Your task to perform on an android device: turn smart compose on in the gmail app Image 0: 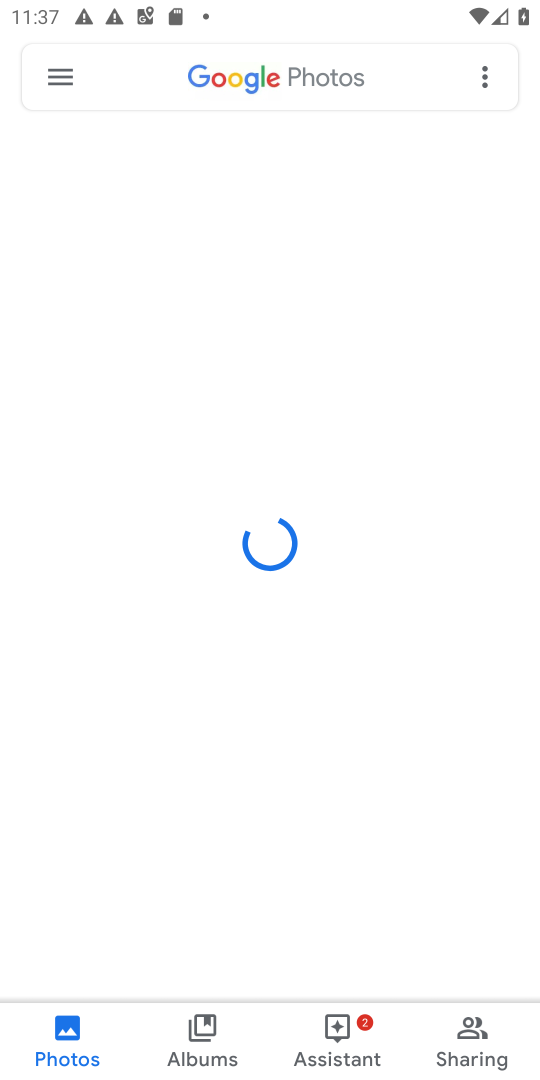
Step 0: press home button
Your task to perform on an android device: turn smart compose on in the gmail app Image 1: 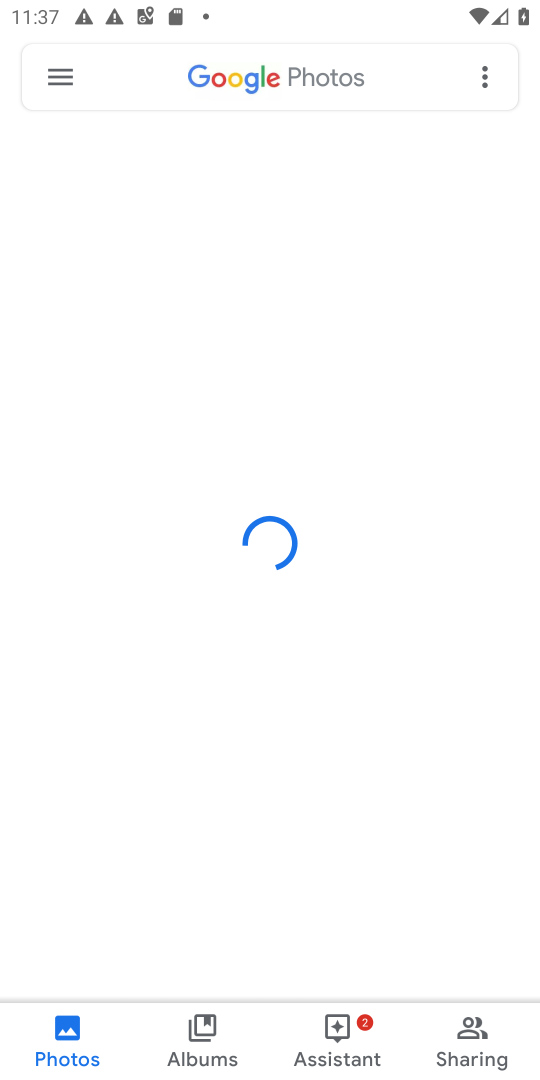
Step 1: press home button
Your task to perform on an android device: turn smart compose on in the gmail app Image 2: 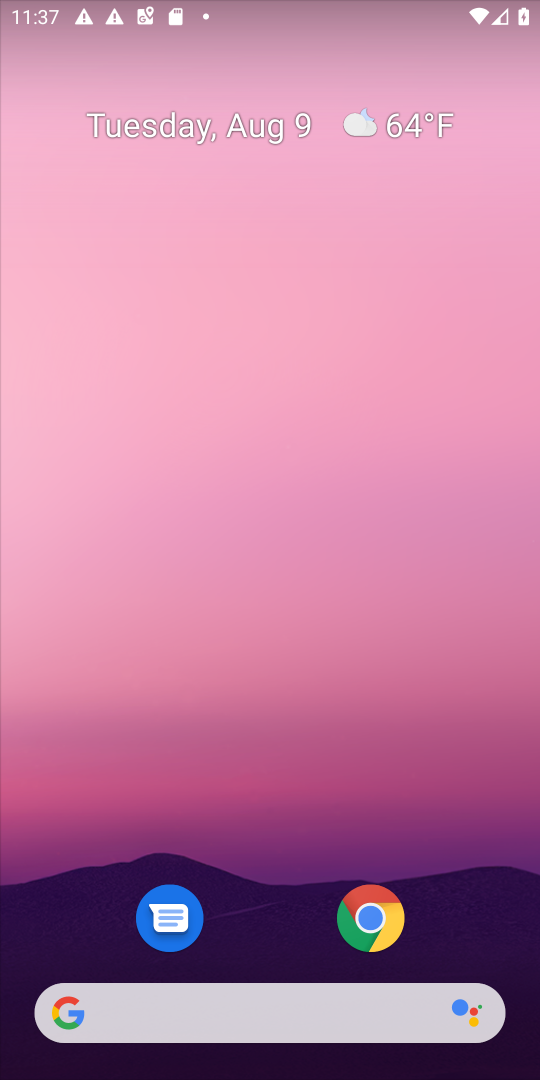
Step 2: drag from (254, 939) to (360, 249)
Your task to perform on an android device: turn smart compose on in the gmail app Image 3: 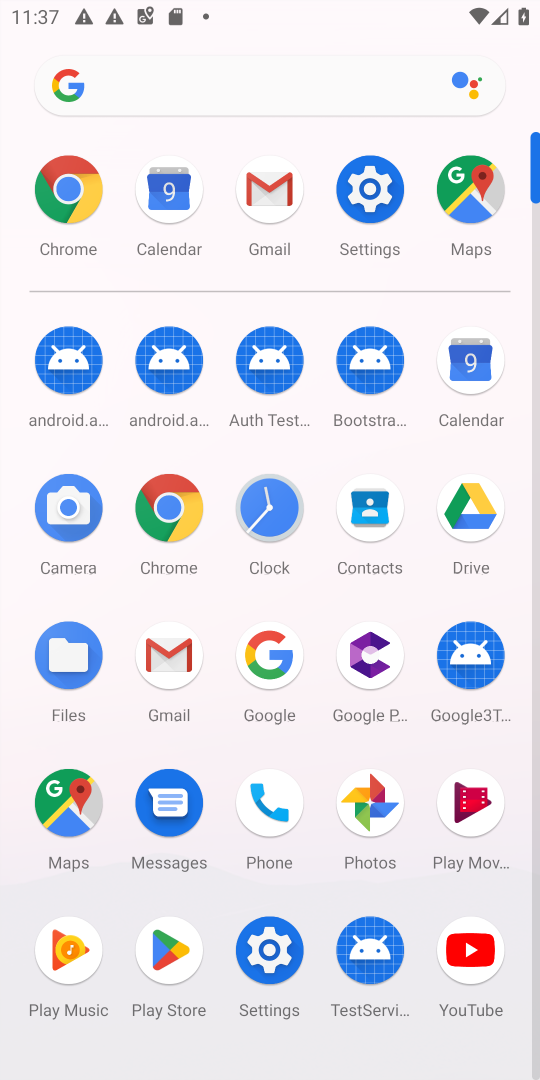
Step 3: click (174, 662)
Your task to perform on an android device: turn smart compose on in the gmail app Image 4: 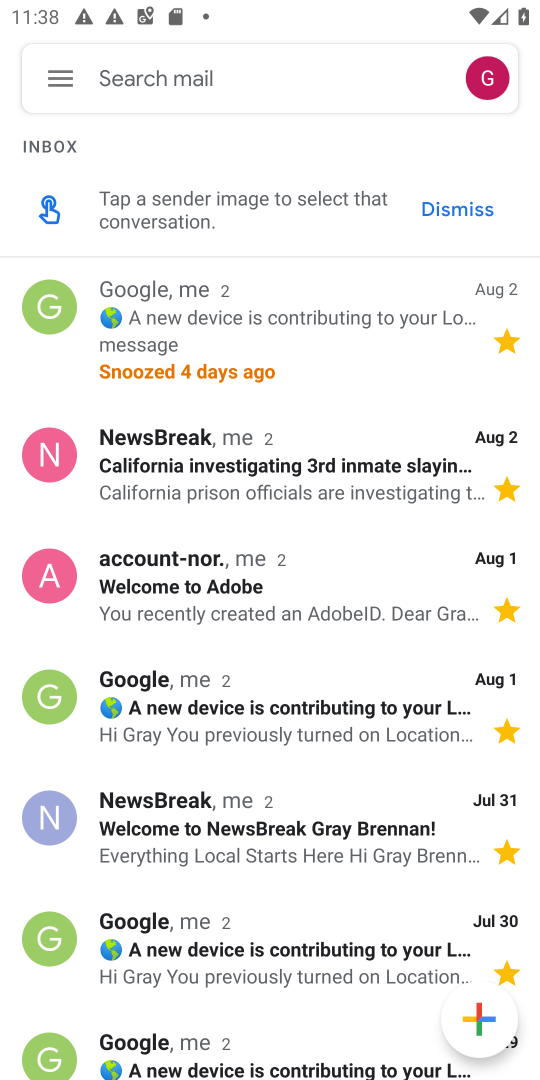
Step 4: click (64, 78)
Your task to perform on an android device: turn smart compose on in the gmail app Image 5: 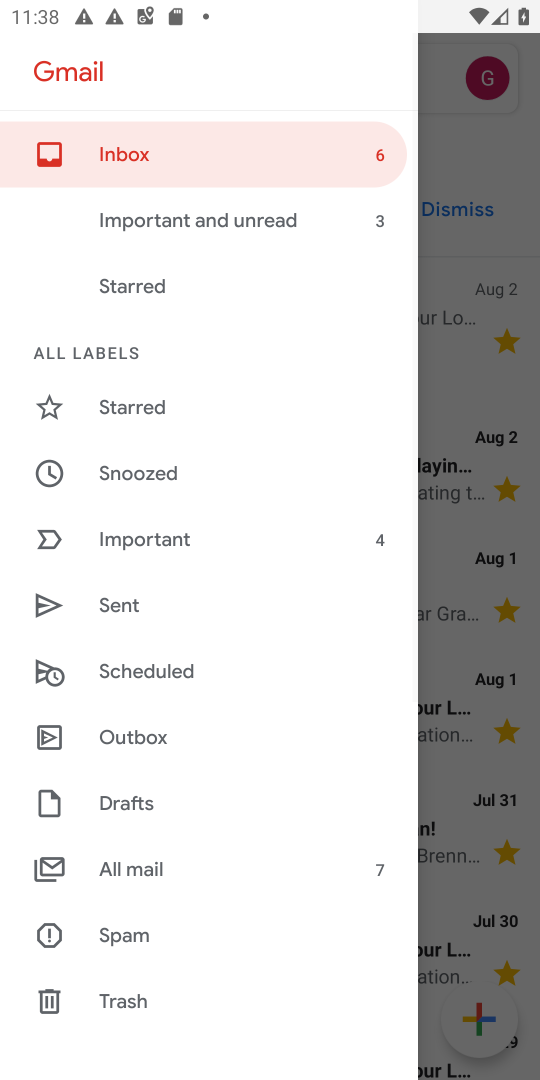
Step 5: drag from (154, 1003) to (231, 503)
Your task to perform on an android device: turn smart compose on in the gmail app Image 6: 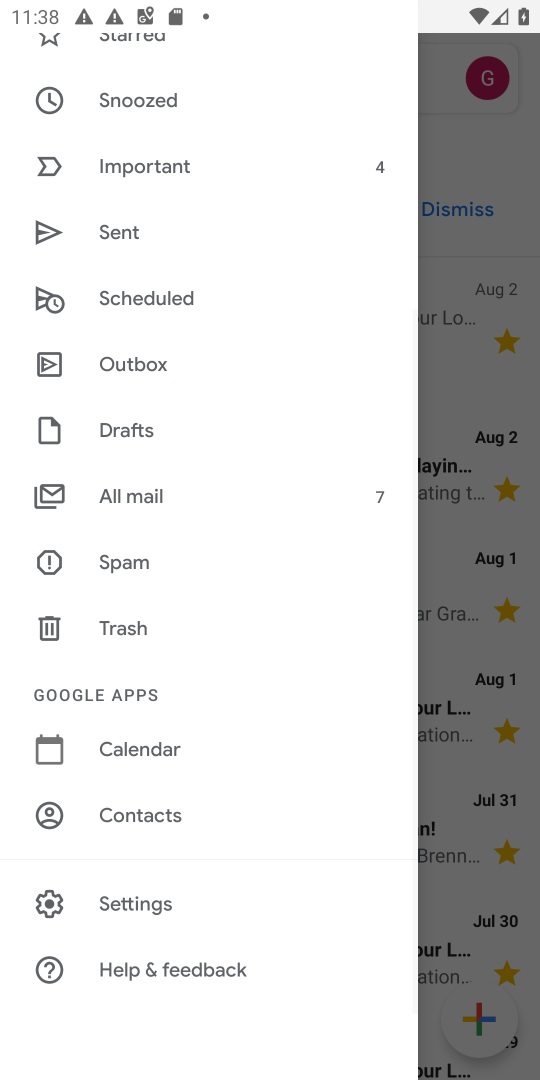
Step 6: click (127, 899)
Your task to perform on an android device: turn smart compose on in the gmail app Image 7: 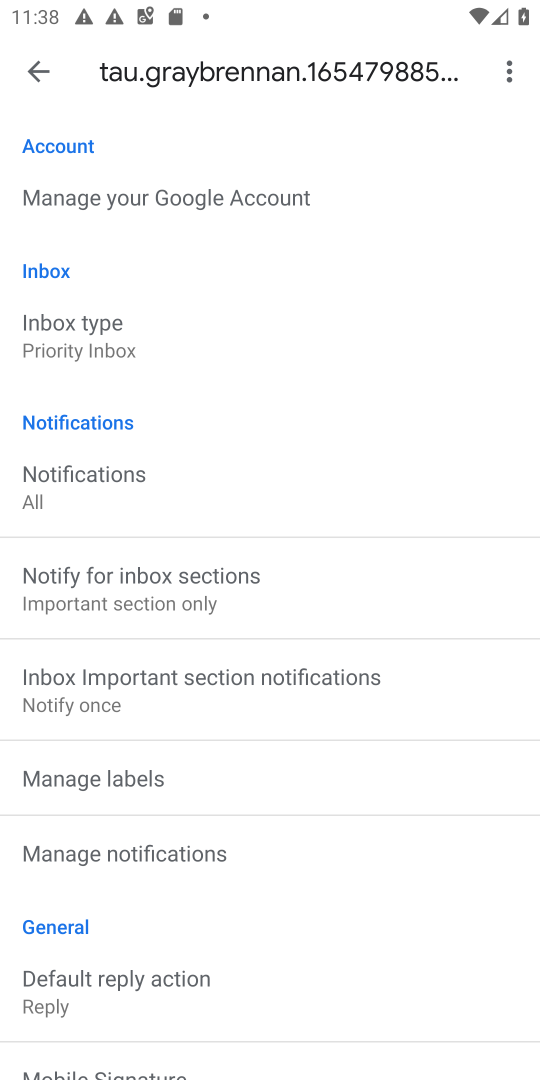
Step 7: task complete